Your task to perform on an android device: check storage Image 0: 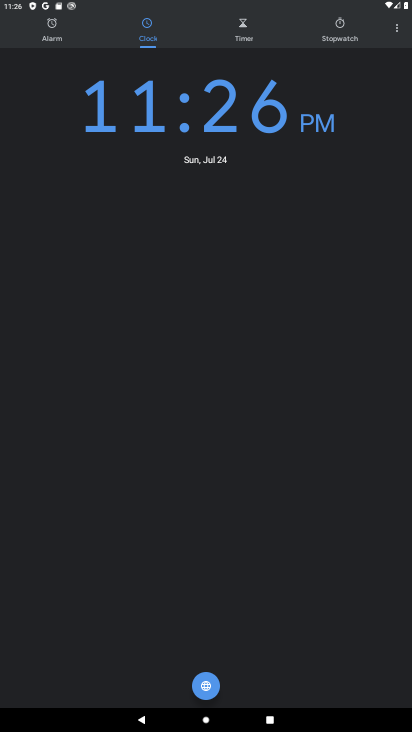
Step 0: press home button
Your task to perform on an android device: check storage Image 1: 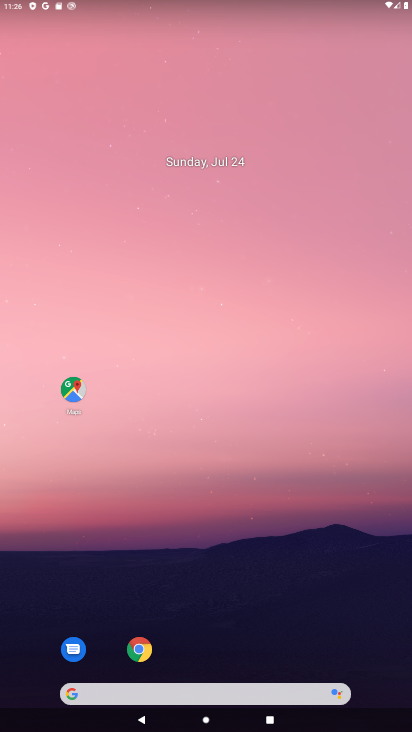
Step 1: drag from (223, 663) to (217, 15)
Your task to perform on an android device: check storage Image 2: 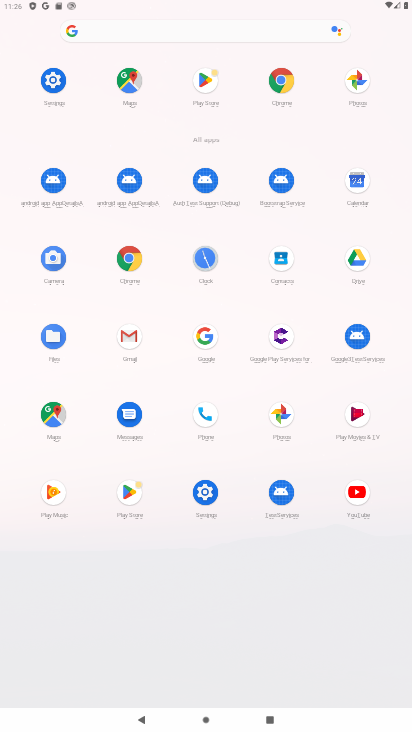
Step 2: click (205, 483)
Your task to perform on an android device: check storage Image 3: 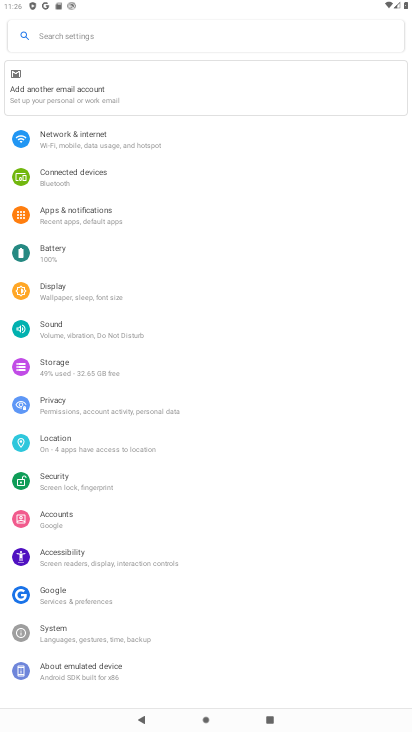
Step 3: click (76, 357)
Your task to perform on an android device: check storage Image 4: 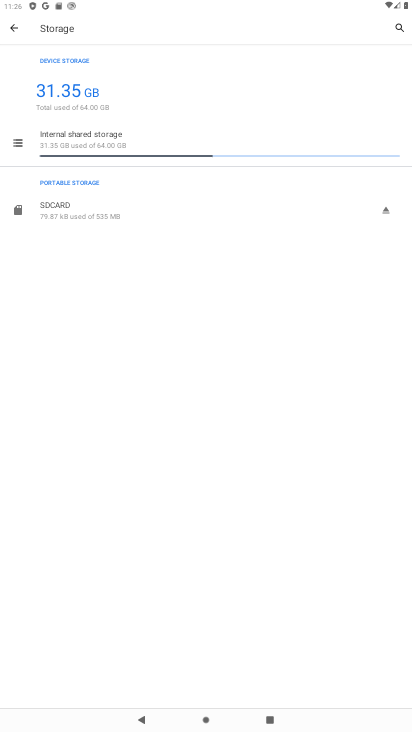
Step 4: task complete